Your task to perform on an android device: change the clock display to digital Image 0: 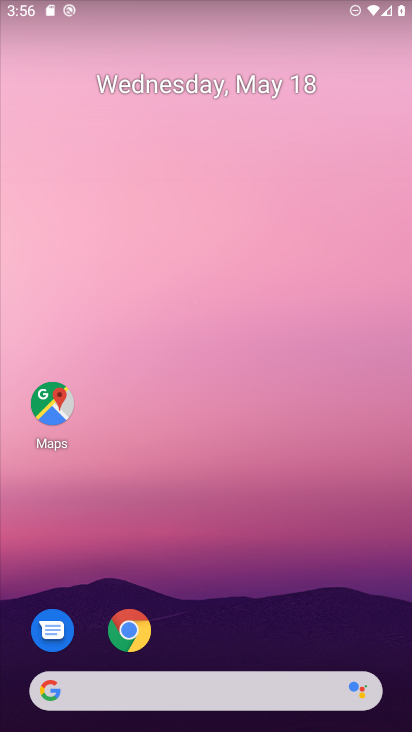
Step 0: drag from (215, 647) to (244, 91)
Your task to perform on an android device: change the clock display to digital Image 1: 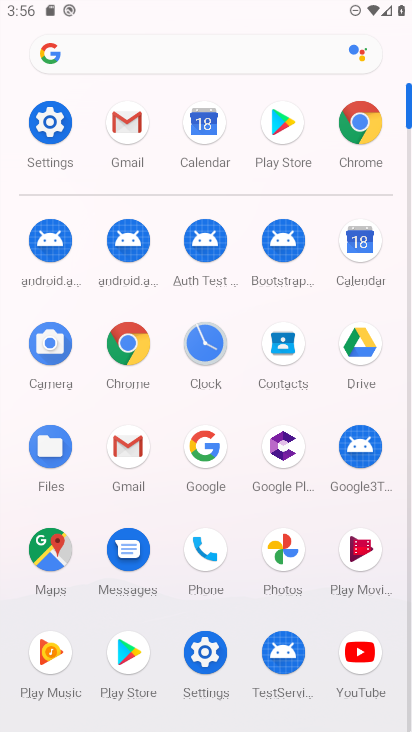
Step 1: click (205, 341)
Your task to perform on an android device: change the clock display to digital Image 2: 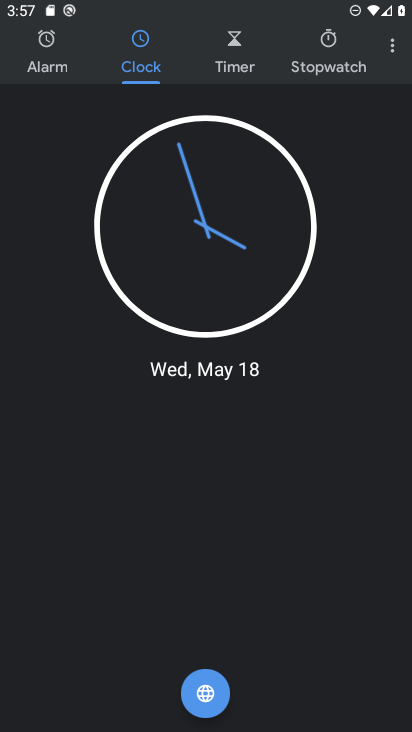
Step 2: click (391, 36)
Your task to perform on an android device: change the clock display to digital Image 3: 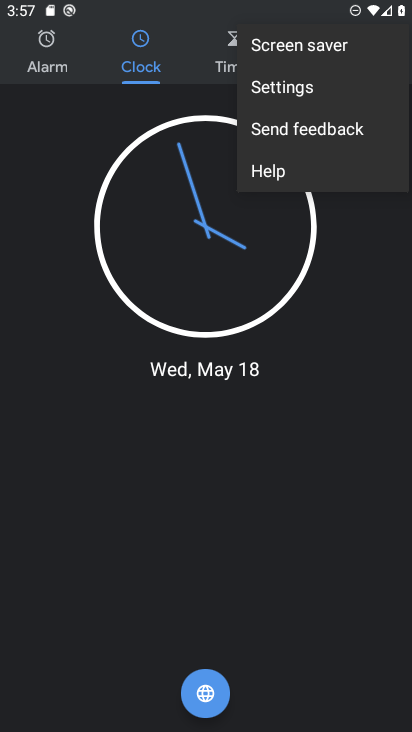
Step 3: click (320, 84)
Your task to perform on an android device: change the clock display to digital Image 4: 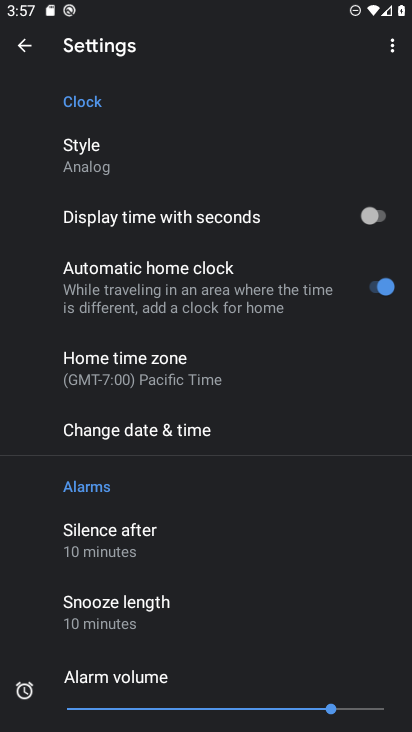
Step 4: click (127, 150)
Your task to perform on an android device: change the clock display to digital Image 5: 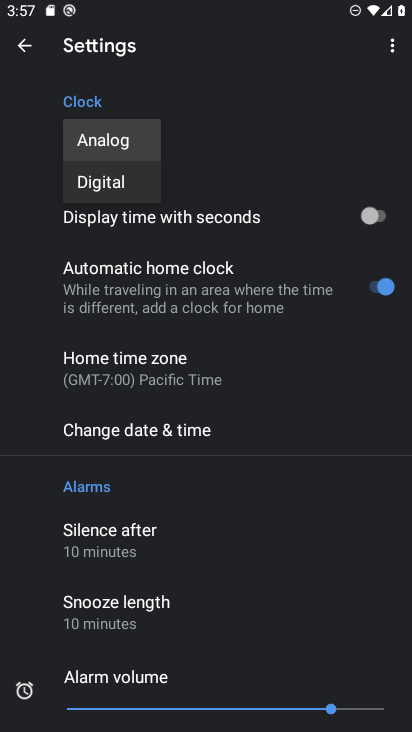
Step 5: click (120, 189)
Your task to perform on an android device: change the clock display to digital Image 6: 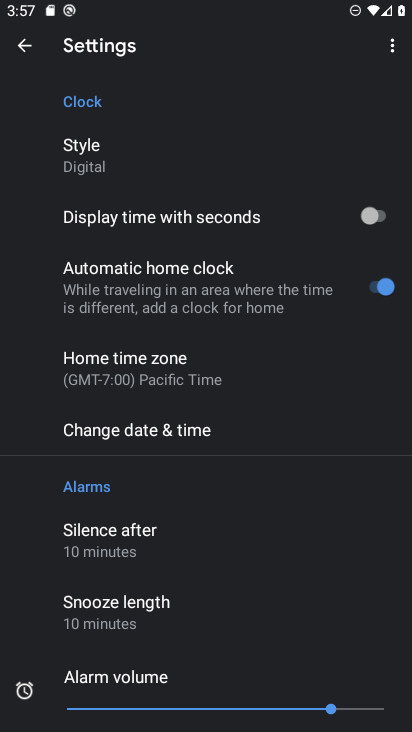
Step 6: task complete